Your task to perform on an android device: move a message to another label in the gmail app Image 0: 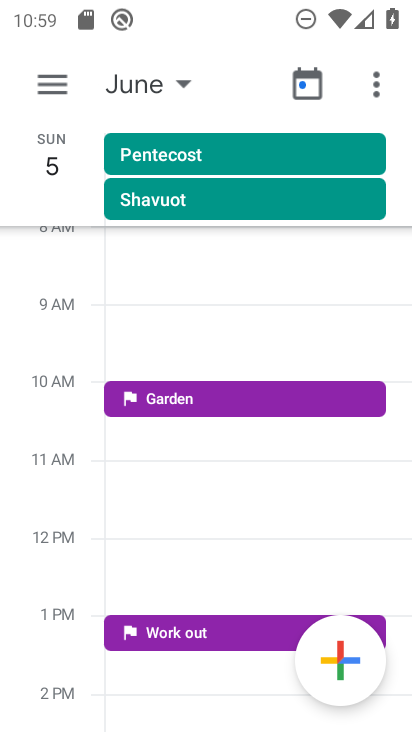
Step 0: press home button
Your task to perform on an android device: move a message to another label in the gmail app Image 1: 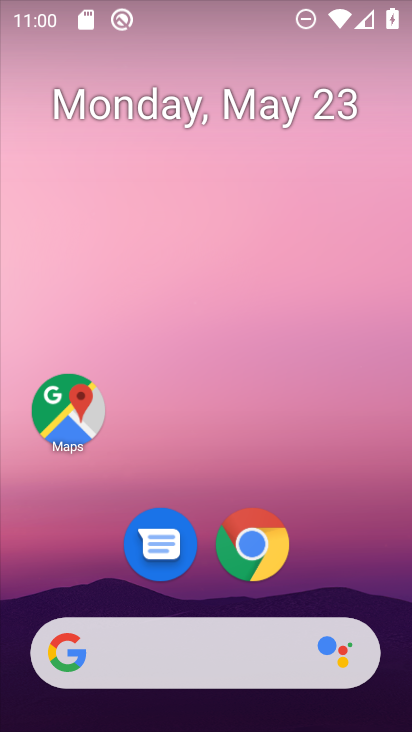
Step 1: drag from (404, 618) to (357, 119)
Your task to perform on an android device: move a message to another label in the gmail app Image 2: 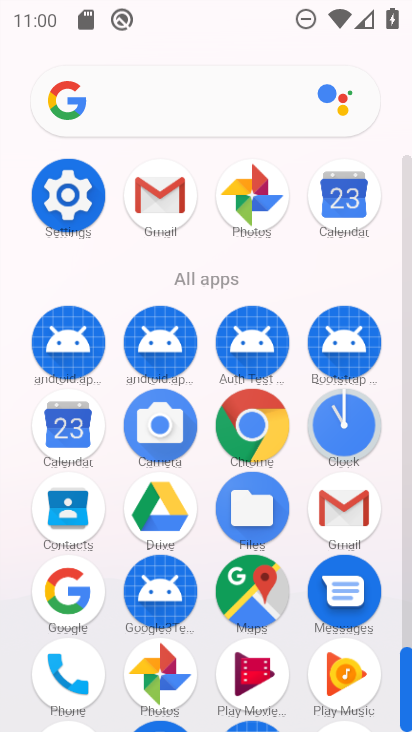
Step 2: click (342, 506)
Your task to perform on an android device: move a message to another label in the gmail app Image 3: 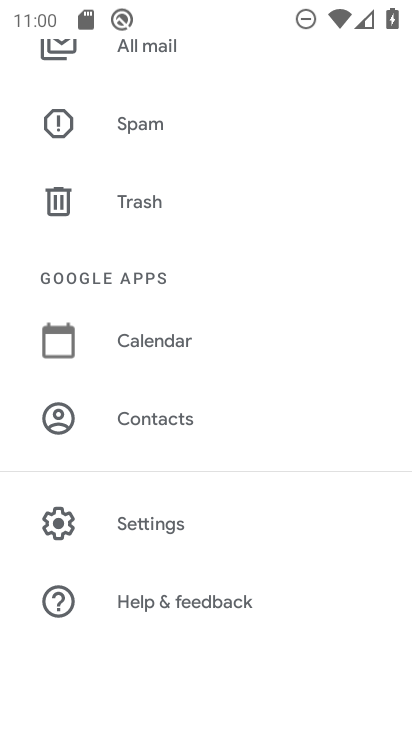
Step 3: drag from (248, 174) to (265, 506)
Your task to perform on an android device: move a message to another label in the gmail app Image 4: 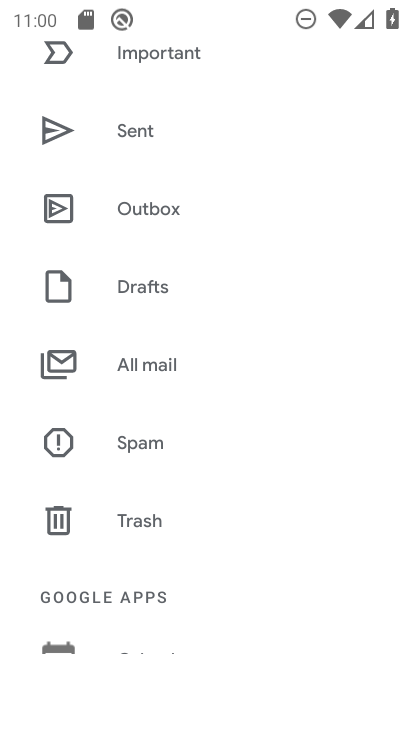
Step 4: drag from (275, 227) to (247, 490)
Your task to perform on an android device: move a message to another label in the gmail app Image 5: 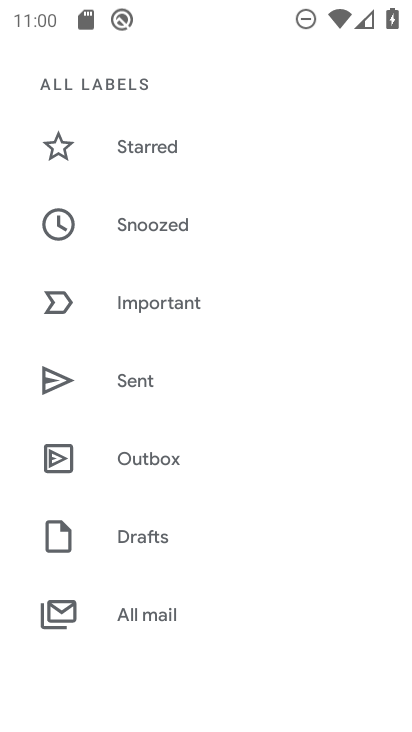
Step 5: click (171, 615)
Your task to perform on an android device: move a message to another label in the gmail app Image 6: 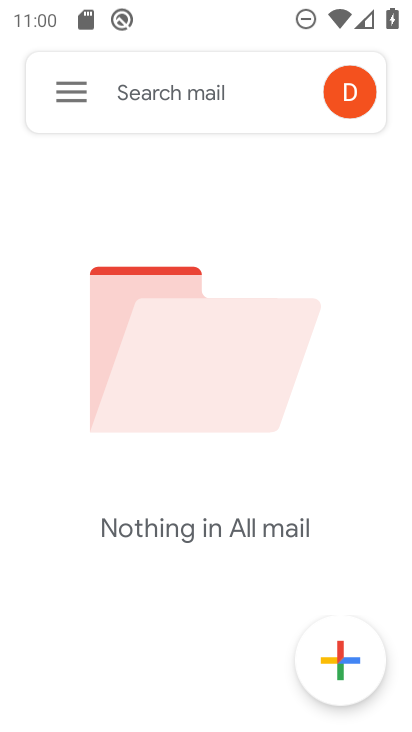
Step 6: task complete